Your task to perform on an android device: check data usage Image 0: 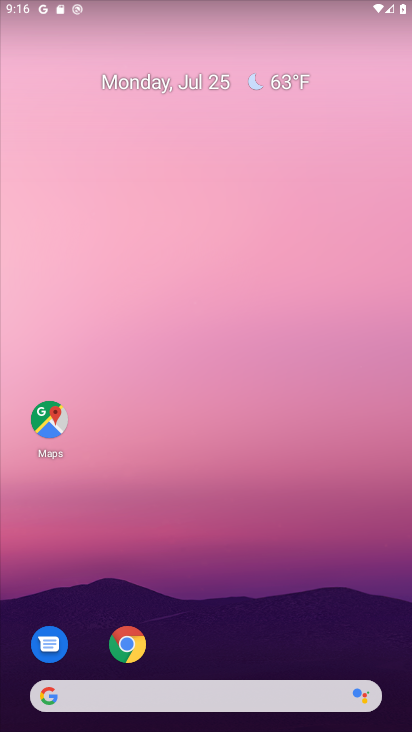
Step 0: drag from (230, 646) to (222, 47)
Your task to perform on an android device: check data usage Image 1: 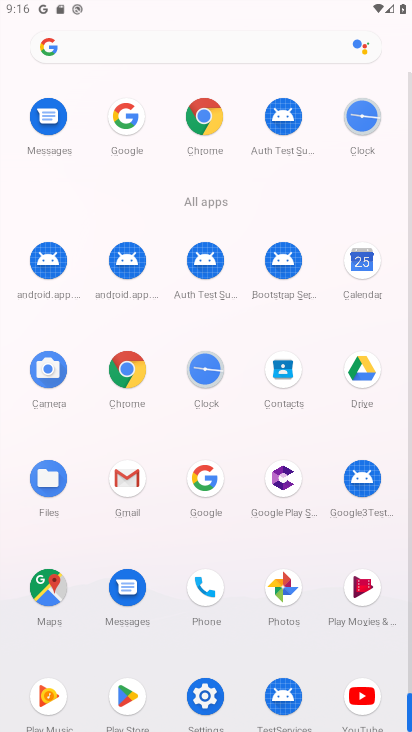
Step 1: click (214, 691)
Your task to perform on an android device: check data usage Image 2: 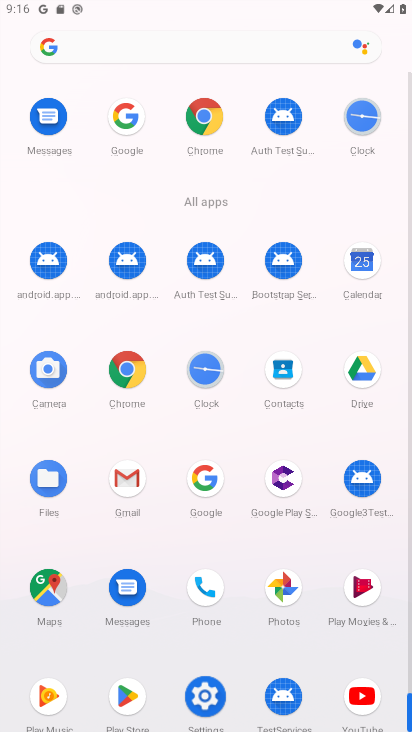
Step 2: click (214, 690)
Your task to perform on an android device: check data usage Image 3: 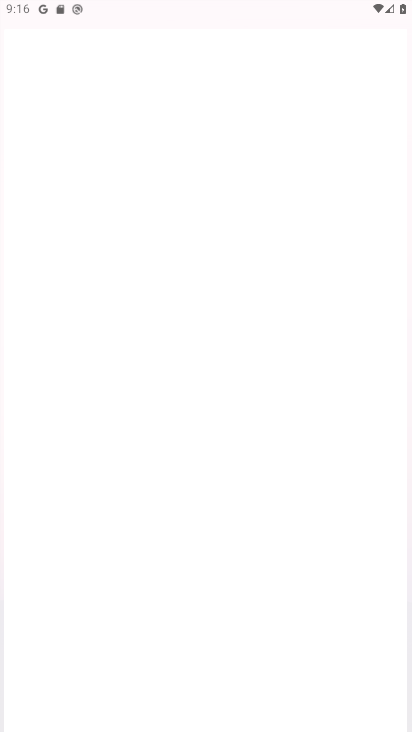
Step 3: click (215, 690)
Your task to perform on an android device: check data usage Image 4: 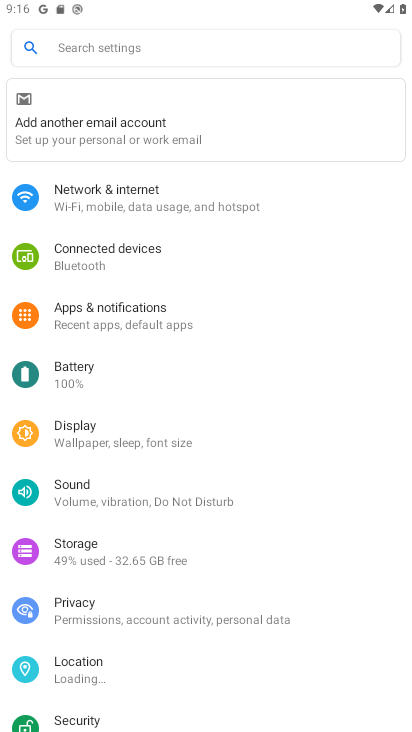
Step 4: click (130, 207)
Your task to perform on an android device: check data usage Image 5: 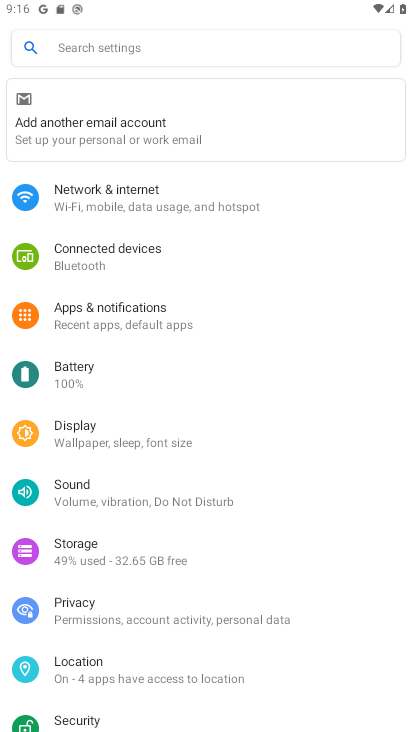
Step 5: click (135, 212)
Your task to perform on an android device: check data usage Image 6: 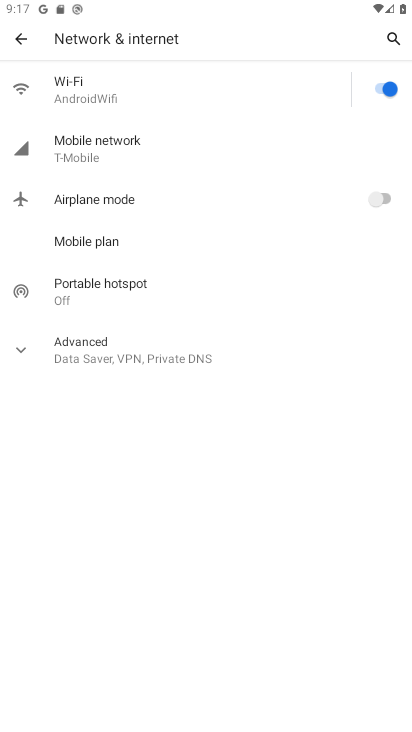
Step 6: click (77, 150)
Your task to perform on an android device: check data usage Image 7: 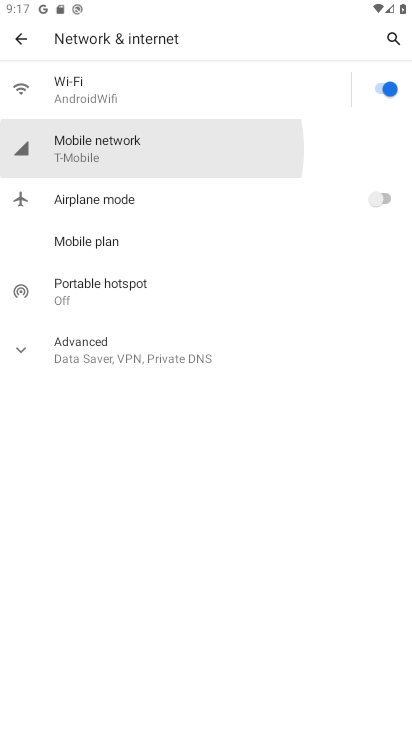
Step 7: click (78, 149)
Your task to perform on an android device: check data usage Image 8: 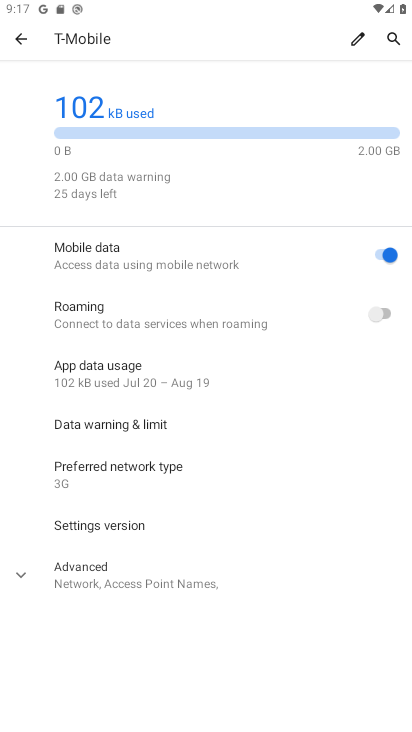
Step 8: task complete